Your task to perform on an android device: toggle airplane mode Image 0: 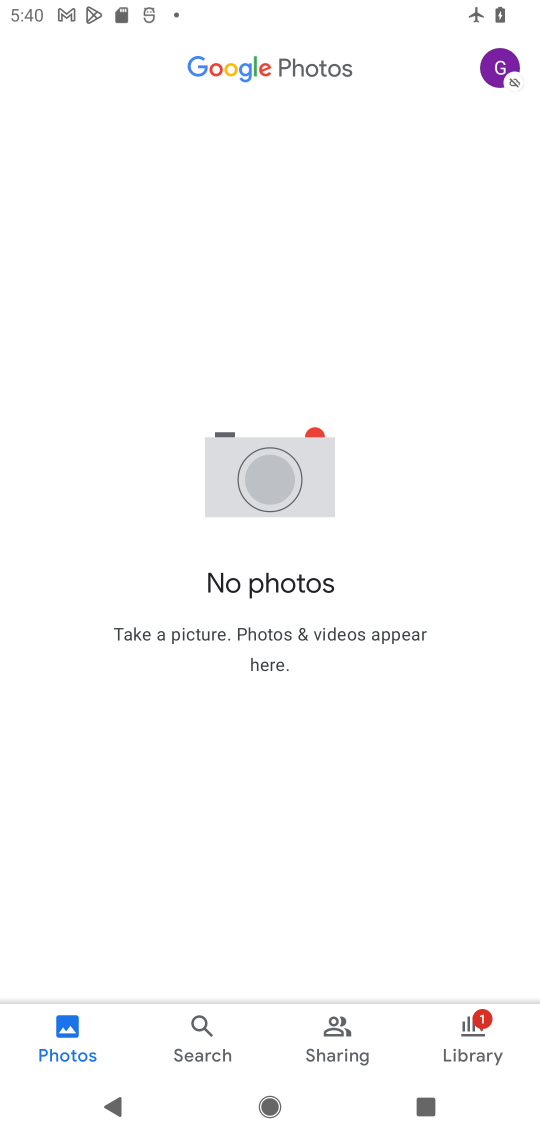
Step 0: press home button
Your task to perform on an android device: toggle airplane mode Image 1: 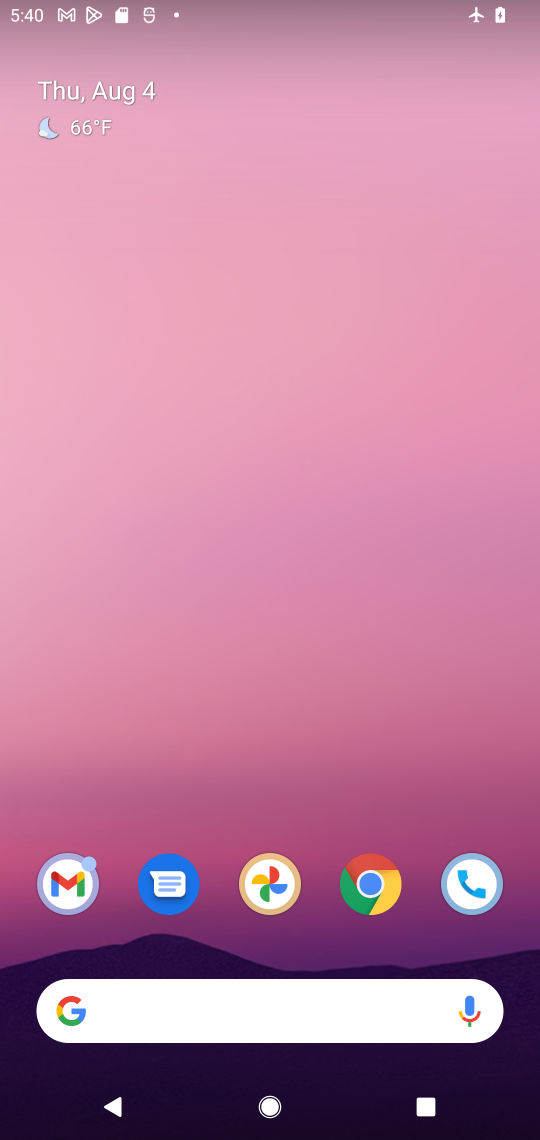
Step 1: drag from (330, 960) to (335, 21)
Your task to perform on an android device: toggle airplane mode Image 2: 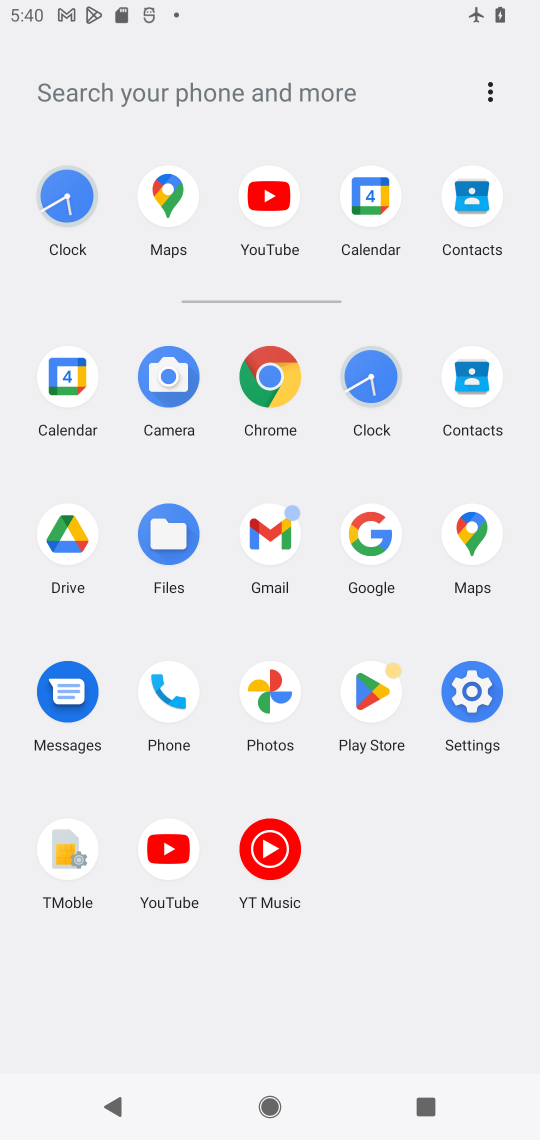
Step 2: click (469, 750)
Your task to perform on an android device: toggle airplane mode Image 3: 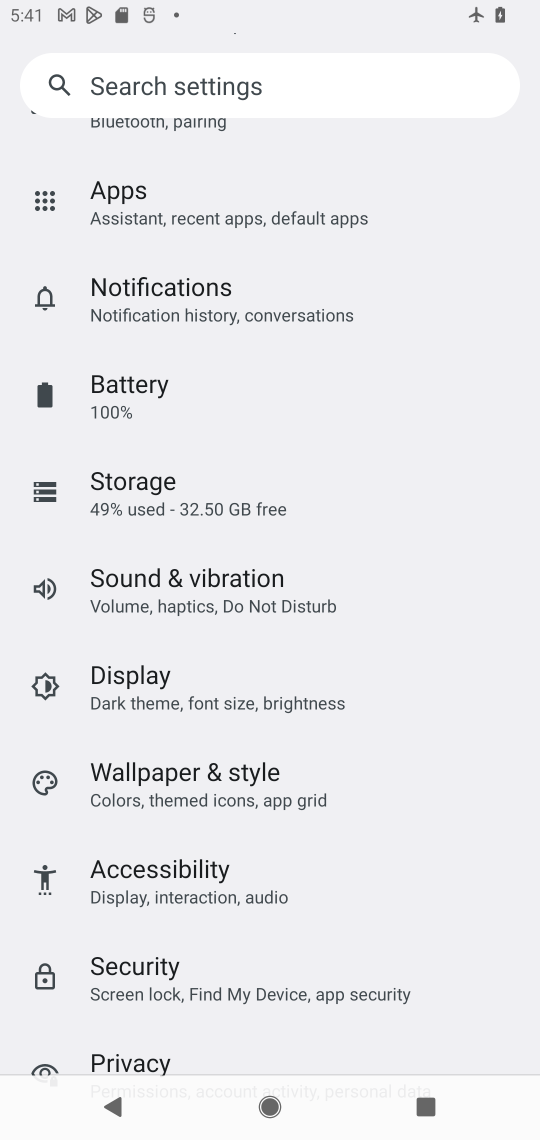
Step 3: drag from (241, 257) to (143, 1114)
Your task to perform on an android device: toggle airplane mode Image 4: 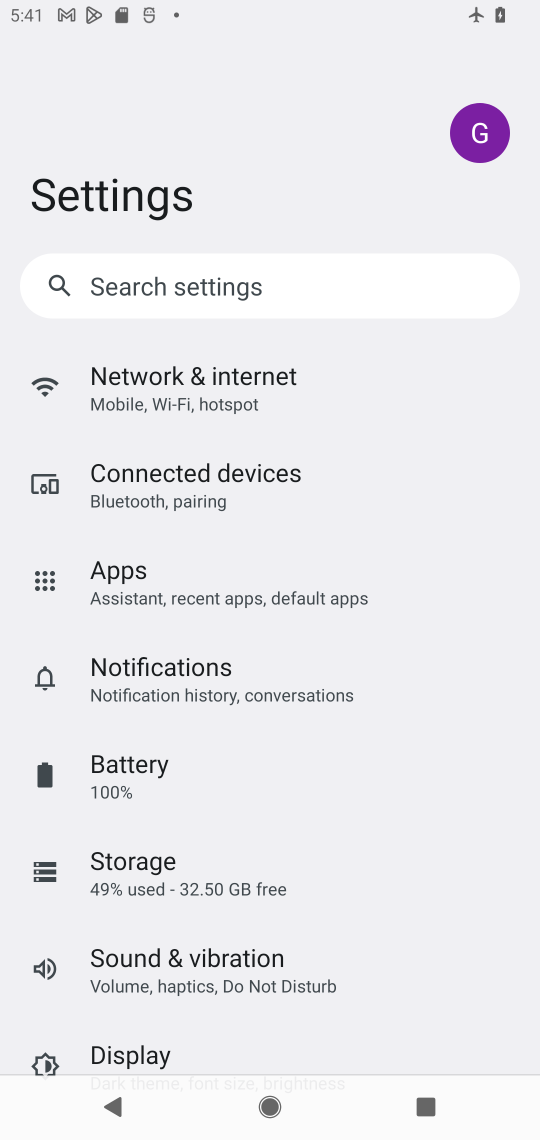
Step 4: click (359, 382)
Your task to perform on an android device: toggle airplane mode Image 5: 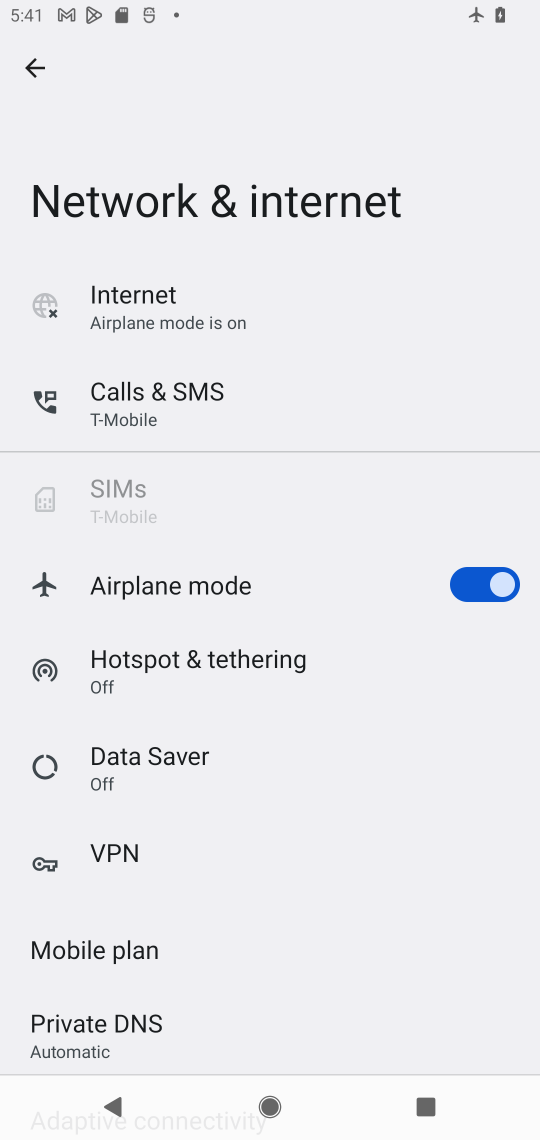
Step 5: click (466, 569)
Your task to perform on an android device: toggle airplane mode Image 6: 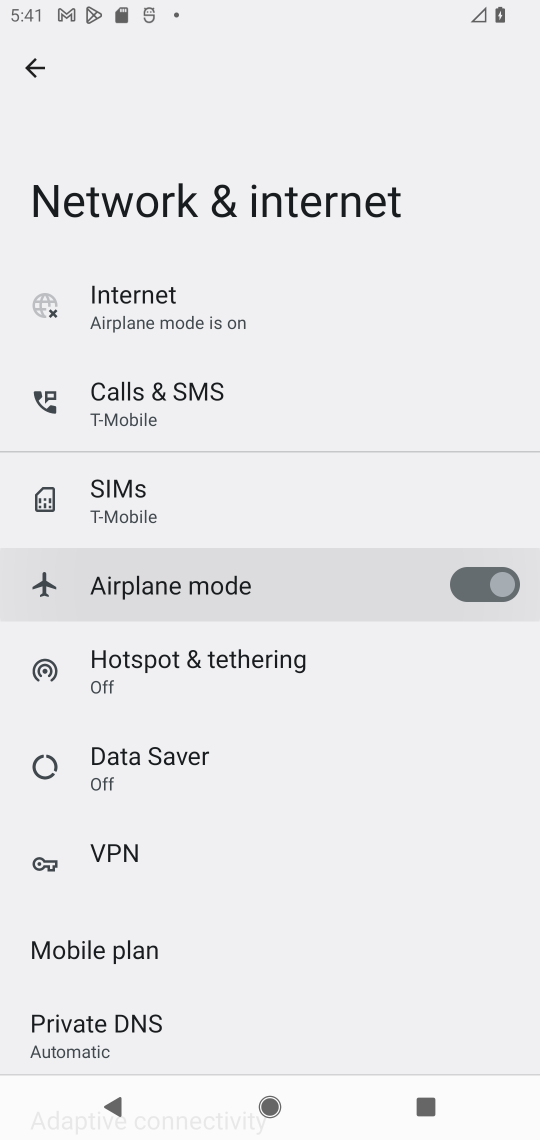
Step 6: task complete